Your task to perform on an android device: When is my next appointment? Image 0: 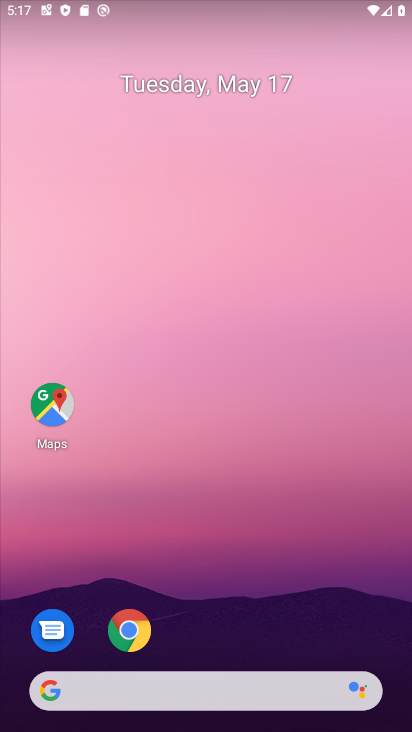
Step 0: drag from (287, 602) to (272, 0)
Your task to perform on an android device: When is my next appointment? Image 1: 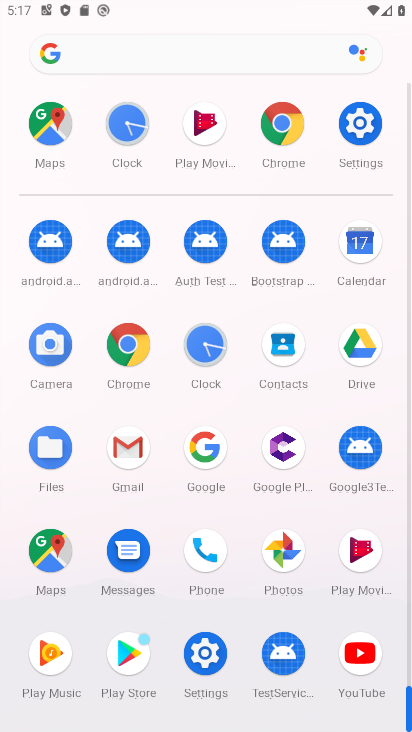
Step 1: click (371, 246)
Your task to perform on an android device: When is my next appointment? Image 2: 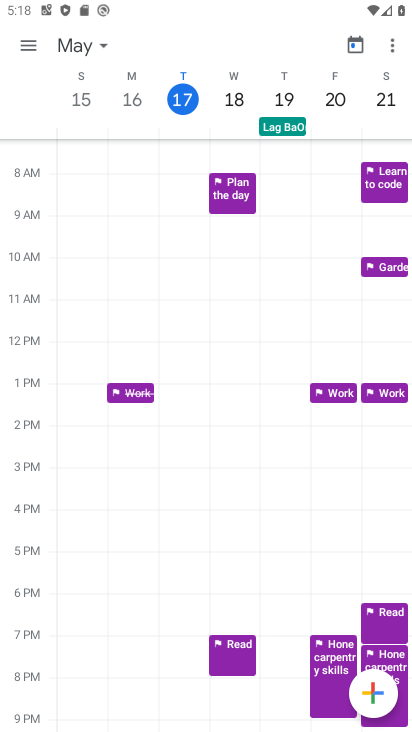
Step 2: task complete